Your task to perform on an android device: toggle javascript in the chrome app Image 0: 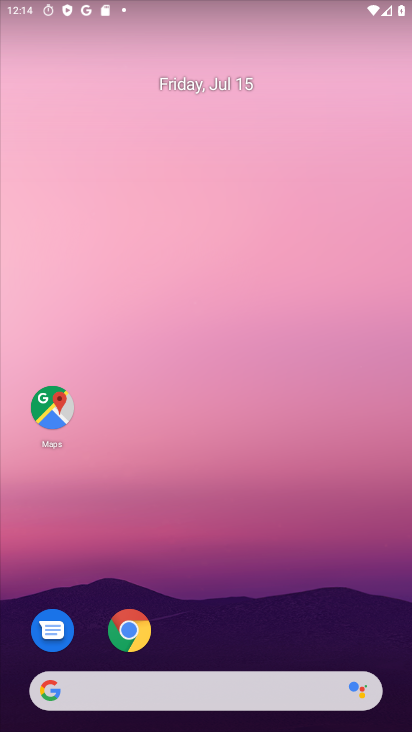
Step 0: drag from (306, 324) to (365, 178)
Your task to perform on an android device: toggle javascript in the chrome app Image 1: 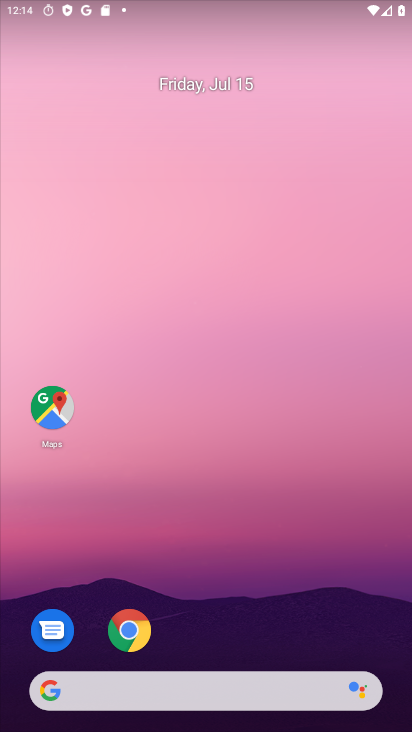
Step 1: drag from (250, 567) to (260, 110)
Your task to perform on an android device: toggle javascript in the chrome app Image 2: 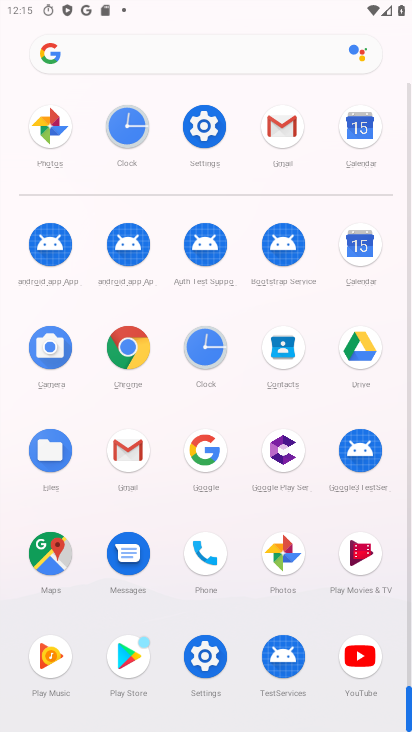
Step 2: click (122, 349)
Your task to perform on an android device: toggle javascript in the chrome app Image 3: 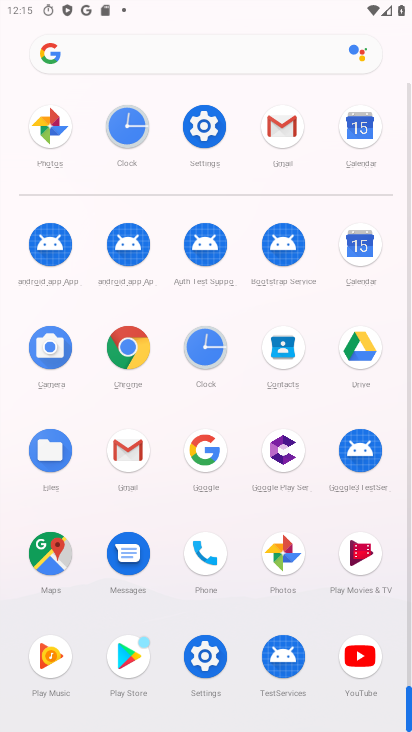
Step 3: click (122, 349)
Your task to perform on an android device: toggle javascript in the chrome app Image 4: 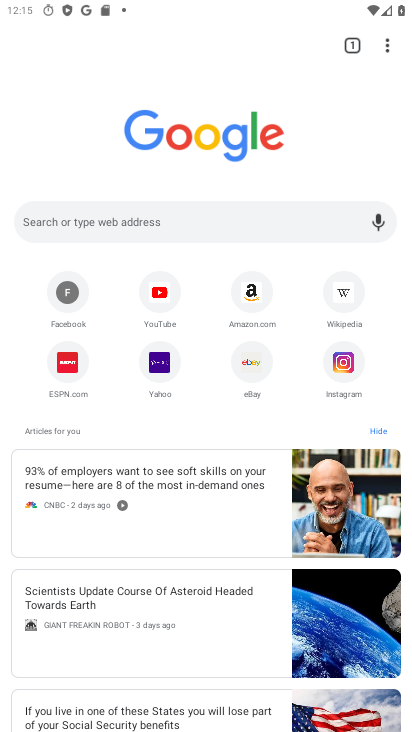
Step 4: click (389, 38)
Your task to perform on an android device: toggle javascript in the chrome app Image 5: 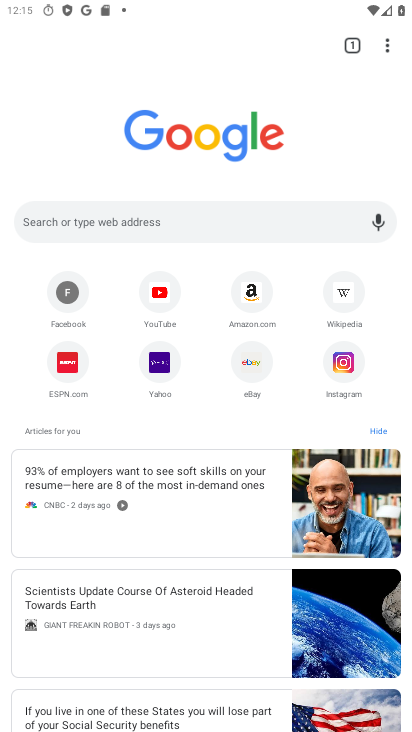
Step 5: drag from (389, 39) to (247, 372)
Your task to perform on an android device: toggle javascript in the chrome app Image 6: 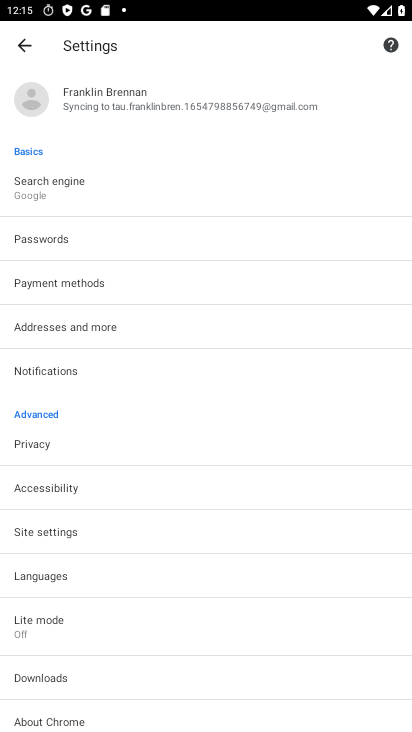
Step 6: click (62, 540)
Your task to perform on an android device: toggle javascript in the chrome app Image 7: 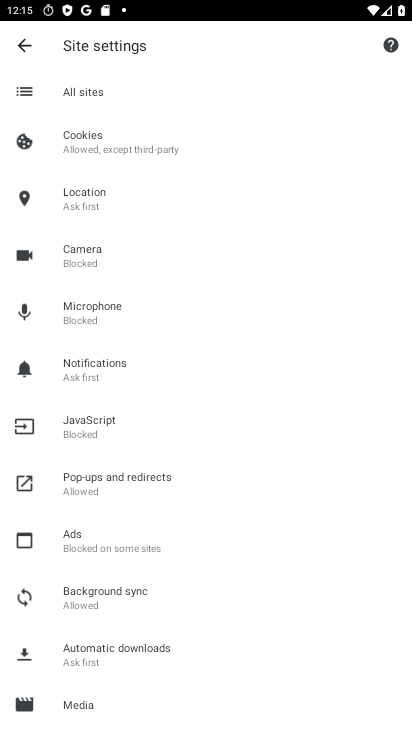
Step 7: click (128, 444)
Your task to perform on an android device: toggle javascript in the chrome app Image 8: 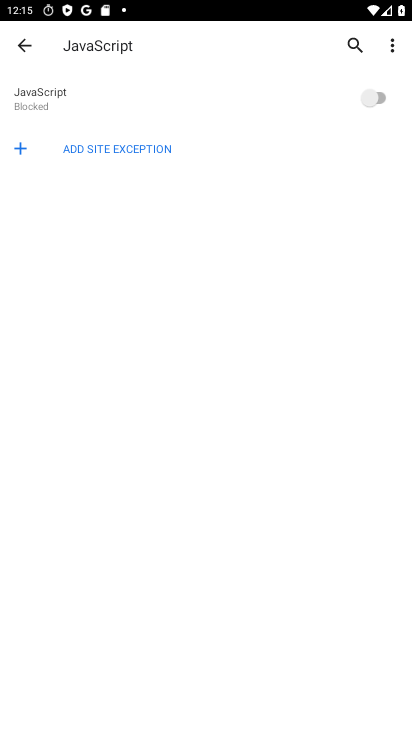
Step 8: click (283, 102)
Your task to perform on an android device: toggle javascript in the chrome app Image 9: 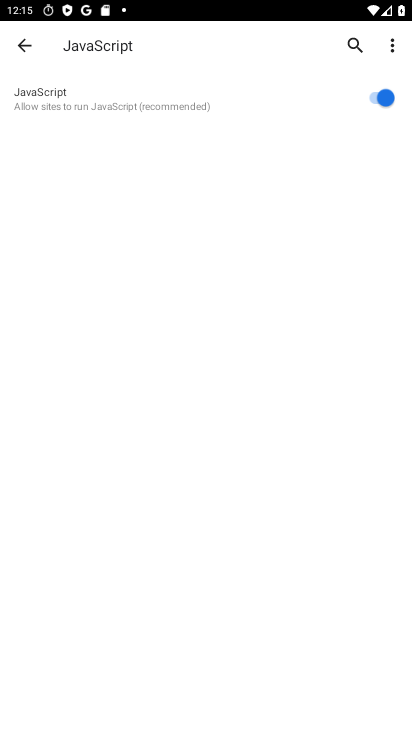
Step 9: task complete